Your task to perform on an android device: What's the news in Myanmar? Image 0: 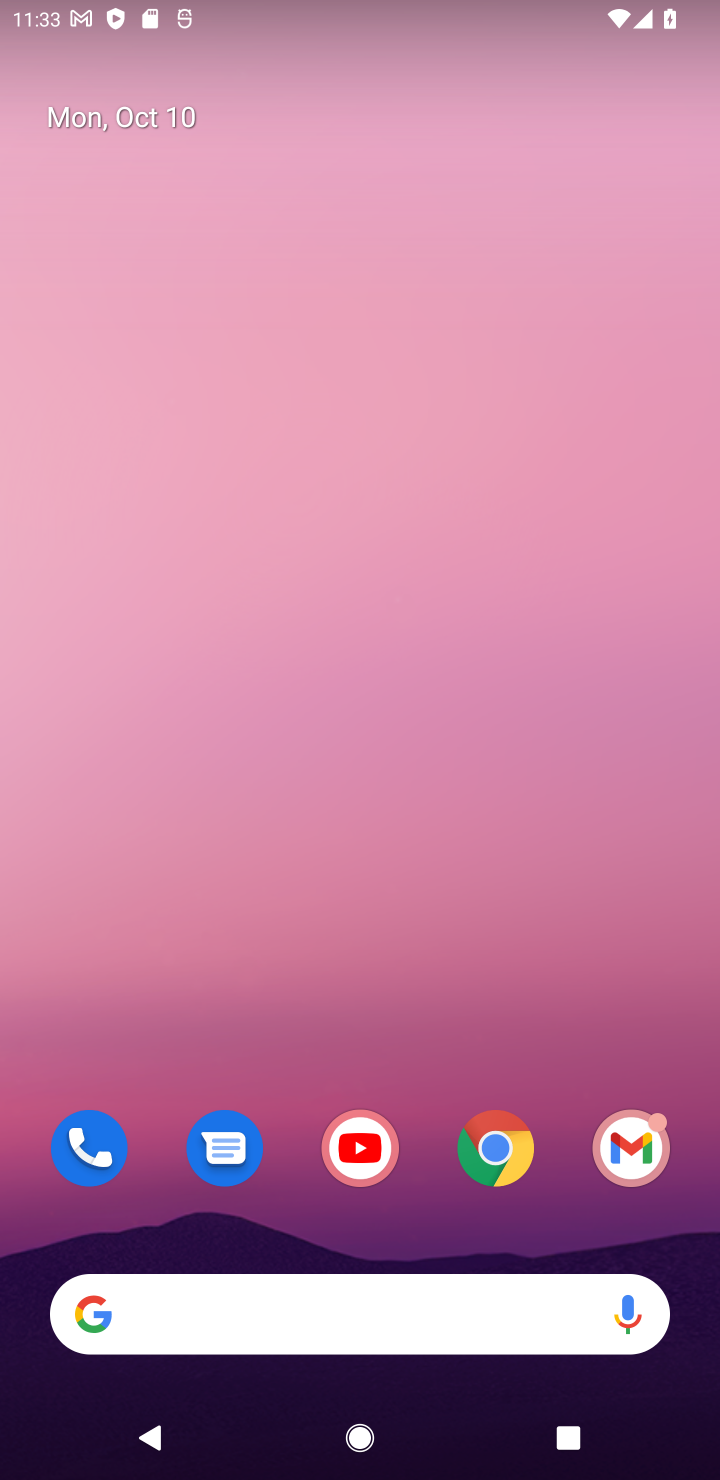
Step 0: drag from (288, 1225) to (338, 641)
Your task to perform on an android device: What's the news in Myanmar? Image 1: 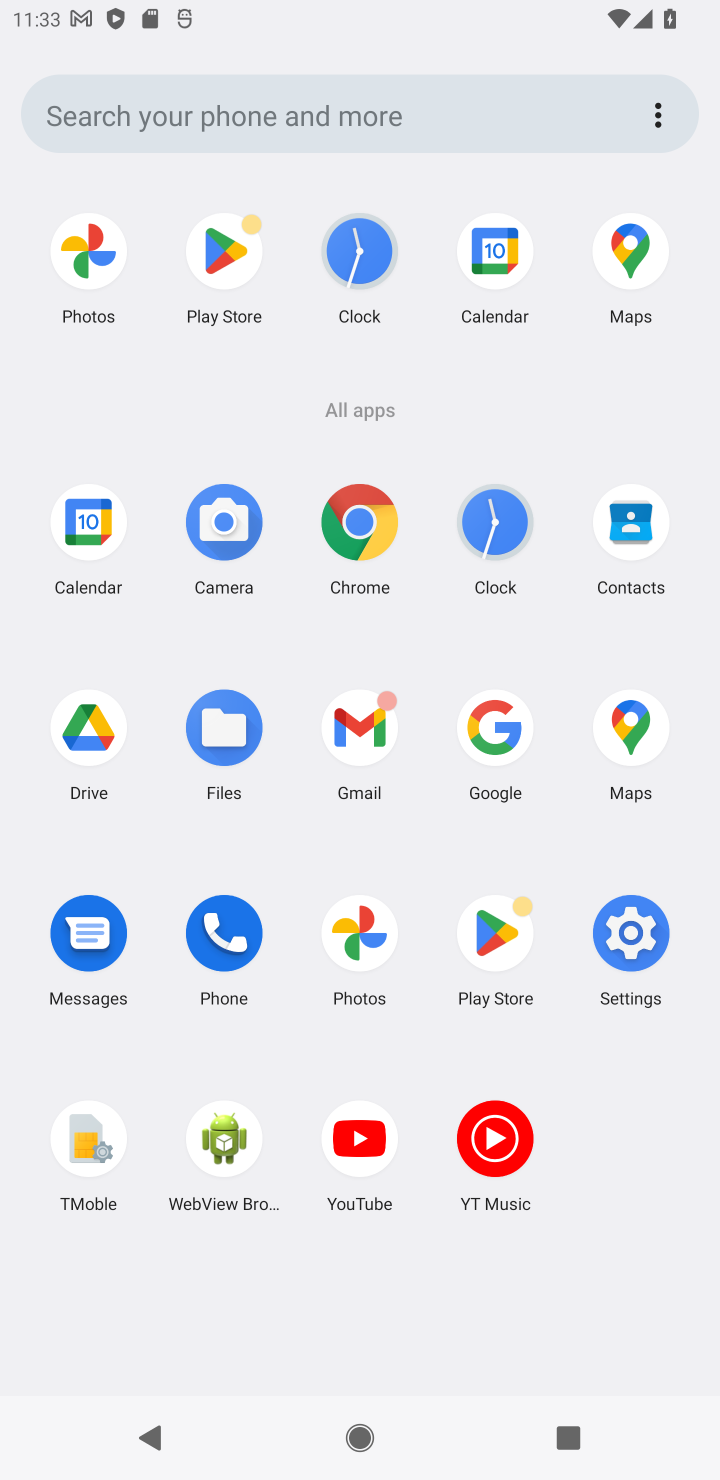
Step 1: click (496, 736)
Your task to perform on an android device: What's the news in Myanmar? Image 2: 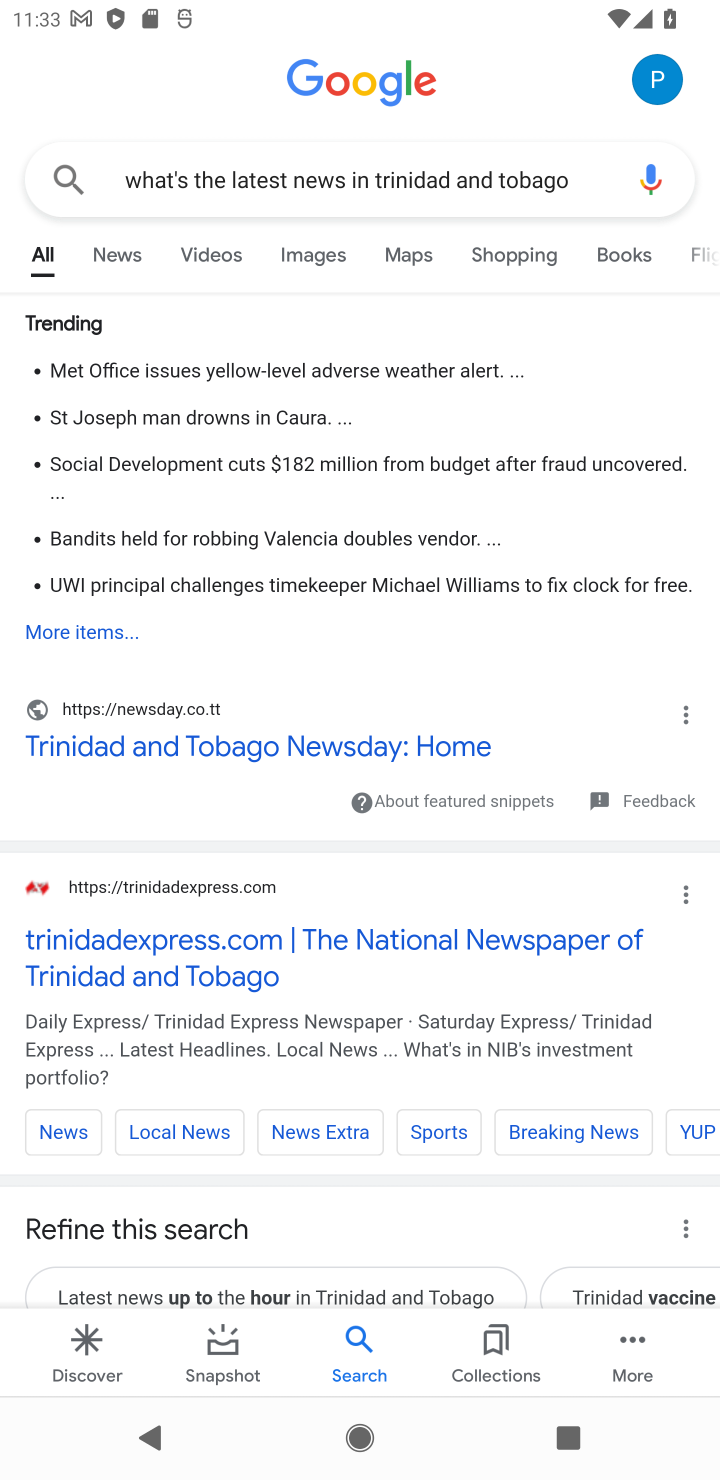
Step 2: click (384, 166)
Your task to perform on an android device: What's the news in Myanmar? Image 3: 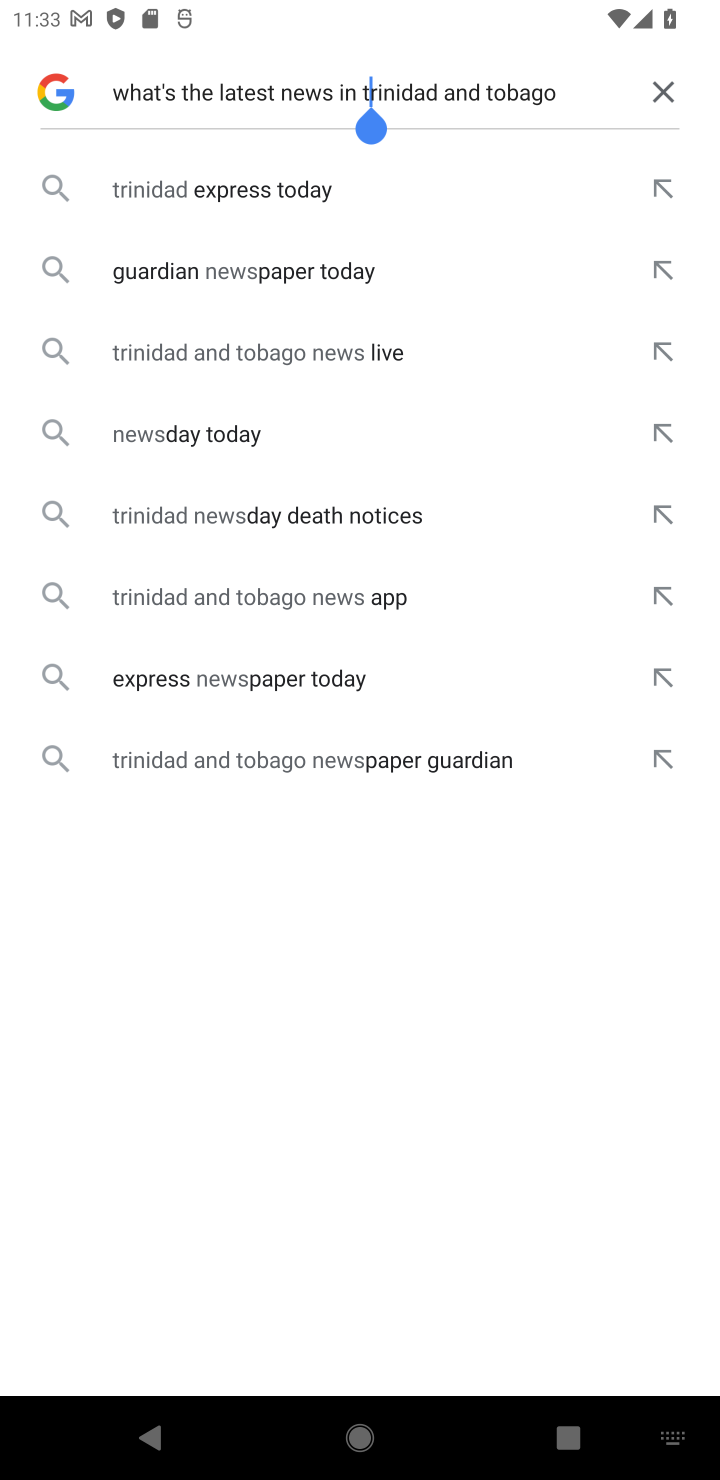
Step 3: click (672, 92)
Your task to perform on an android device: What's the news in Myanmar? Image 4: 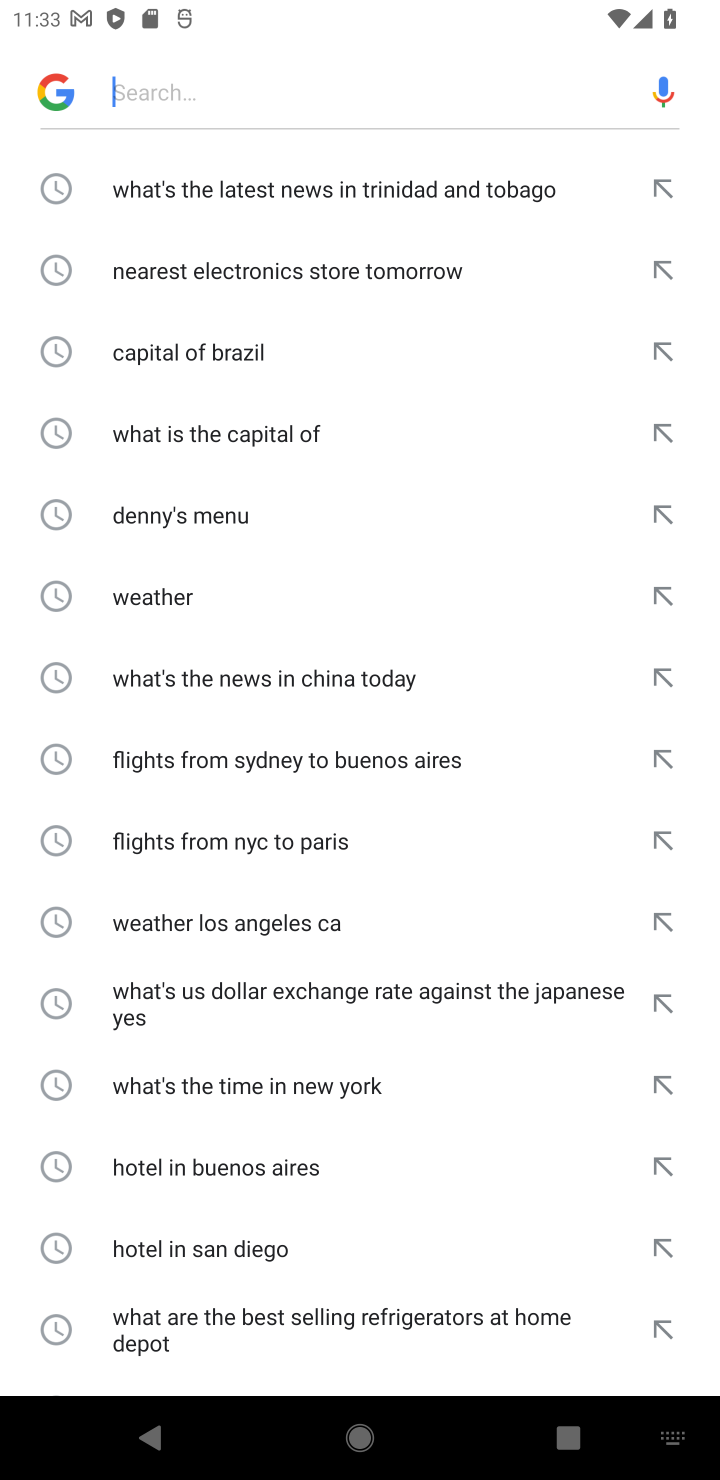
Step 4: type "What's the news in Myanmar?"
Your task to perform on an android device: What's the news in Myanmar? Image 5: 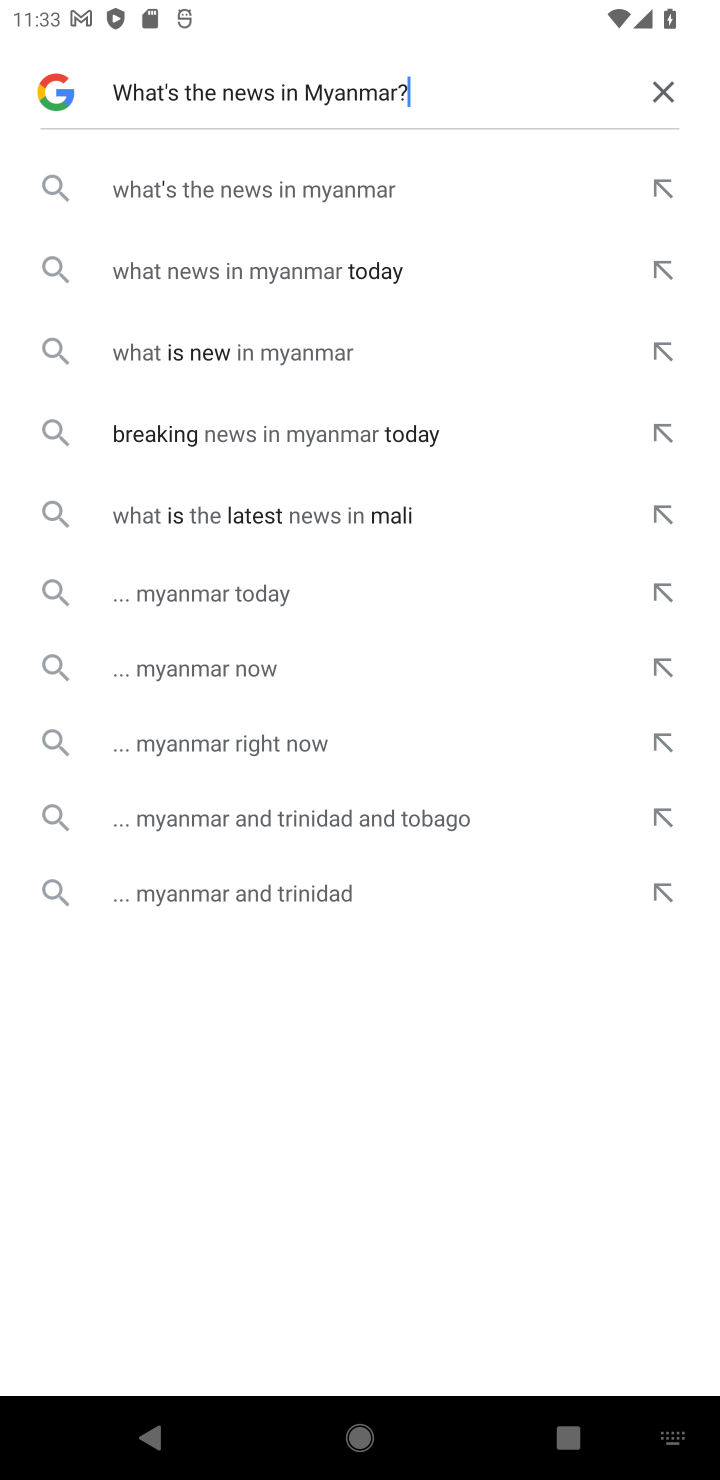
Step 5: click (327, 200)
Your task to perform on an android device: What's the news in Myanmar? Image 6: 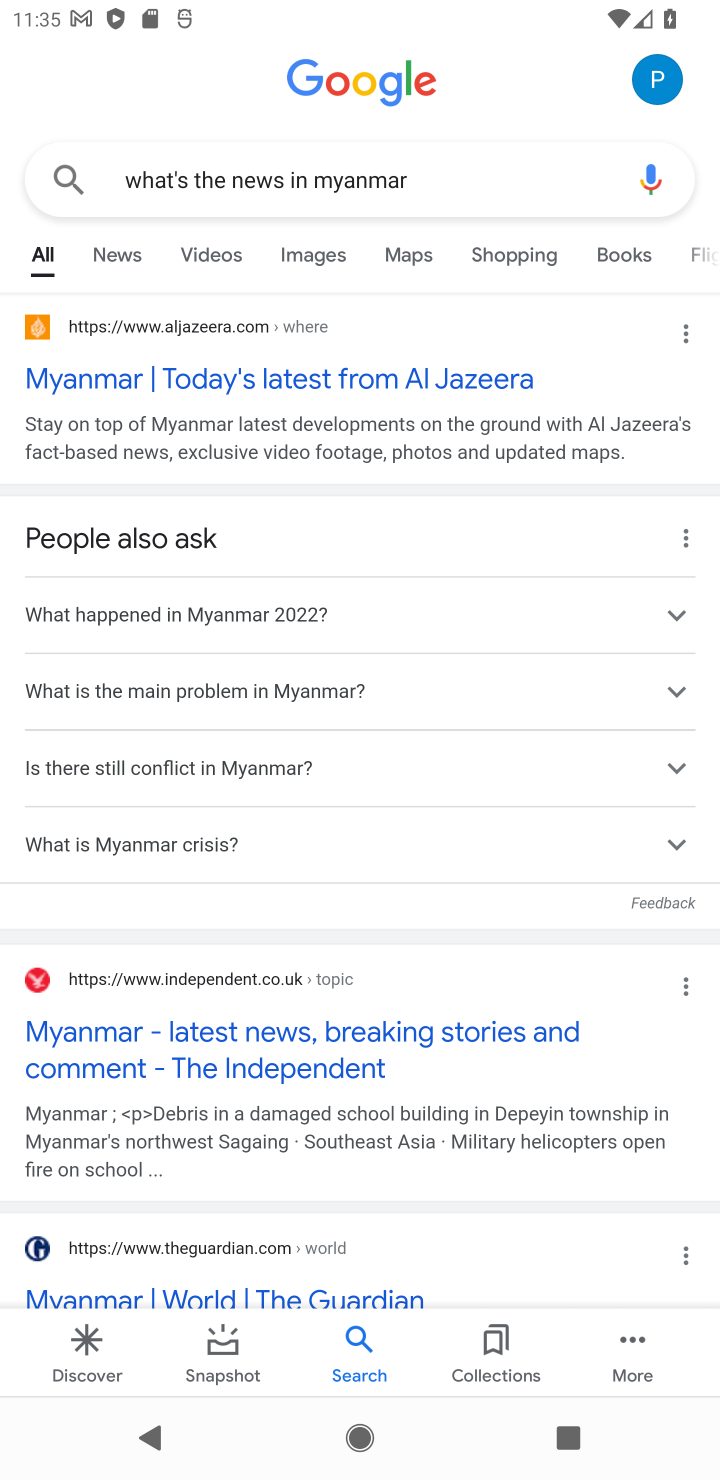
Step 6: click (257, 376)
Your task to perform on an android device: What's the news in Myanmar? Image 7: 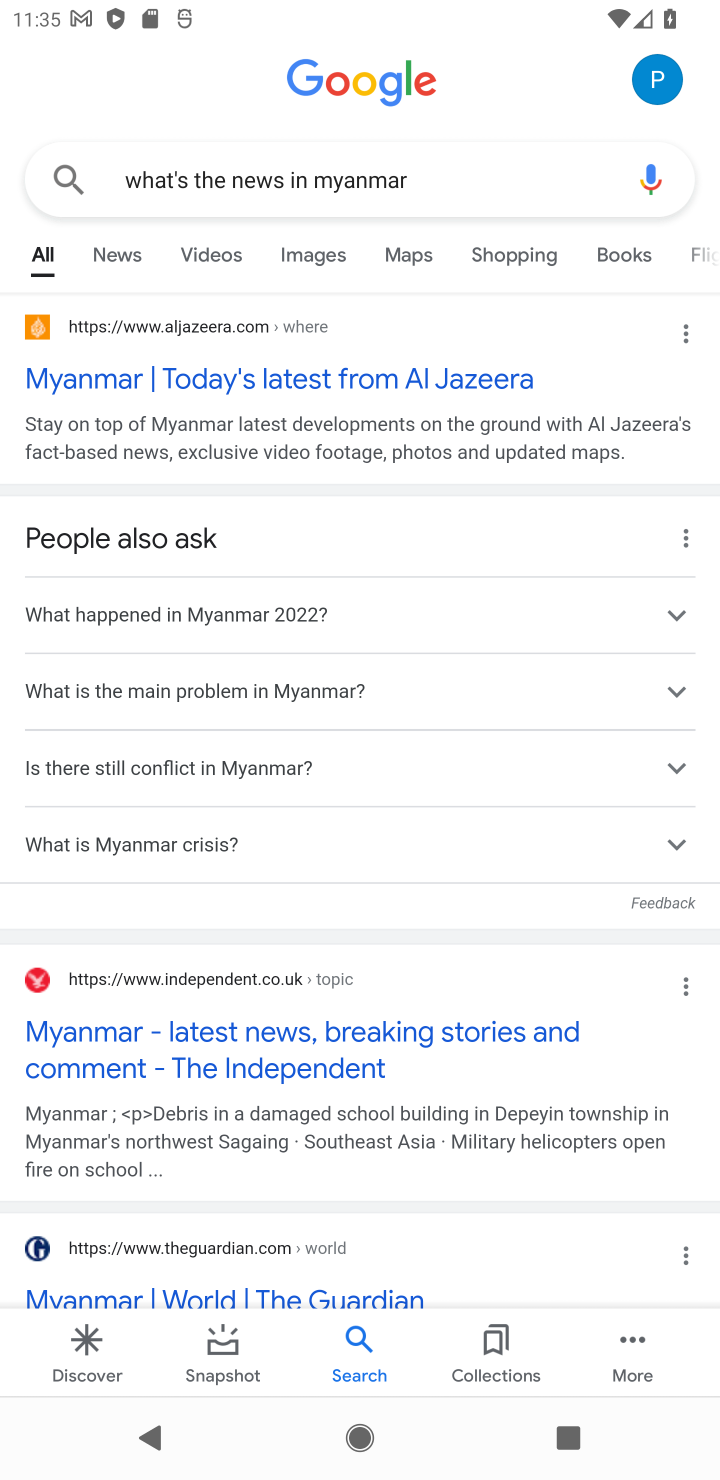
Step 7: click (482, 388)
Your task to perform on an android device: What's the news in Myanmar? Image 8: 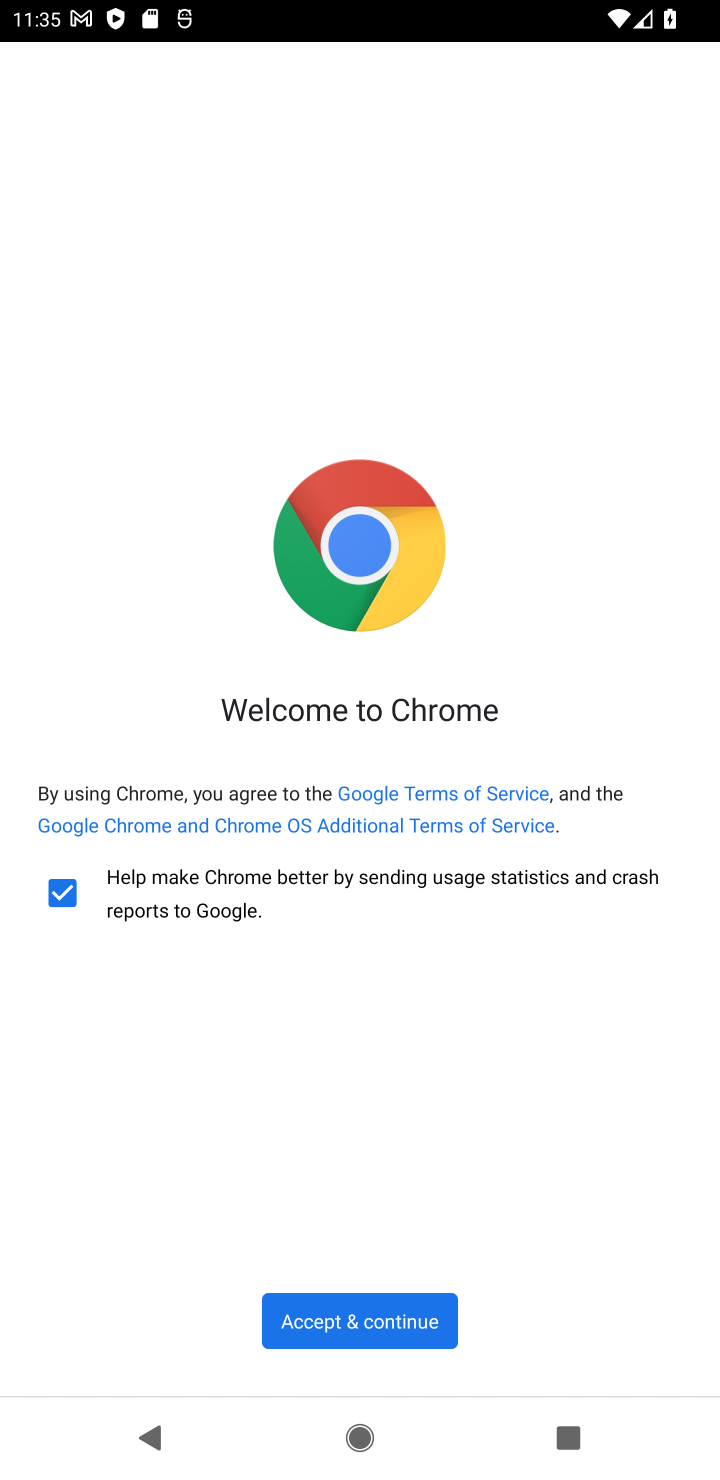
Step 8: click (429, 1317)
Your task to perform on an android device: What's the news in Myanmar? Image 9: 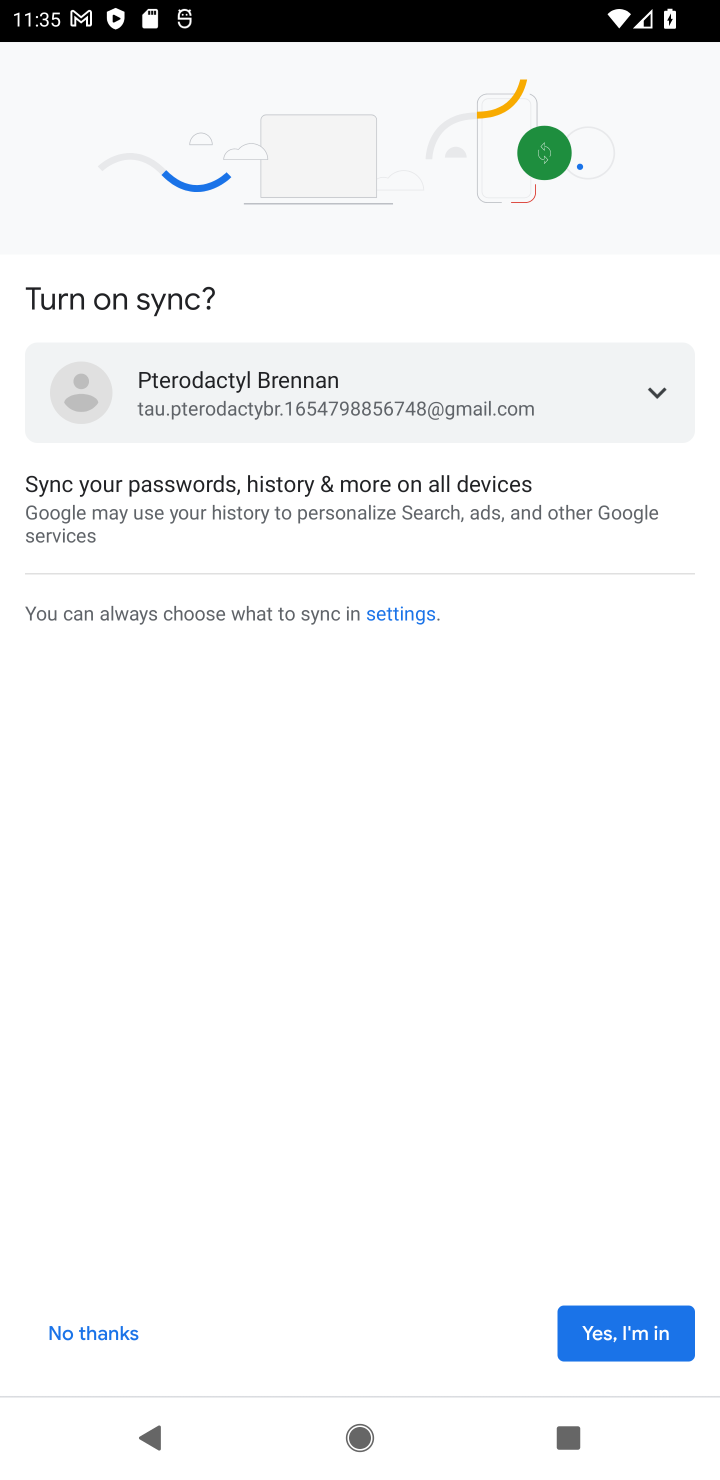
Step 9: click (612, 1325)
Your task to perform on an android device: What's the news in Myanmar? Image 10: 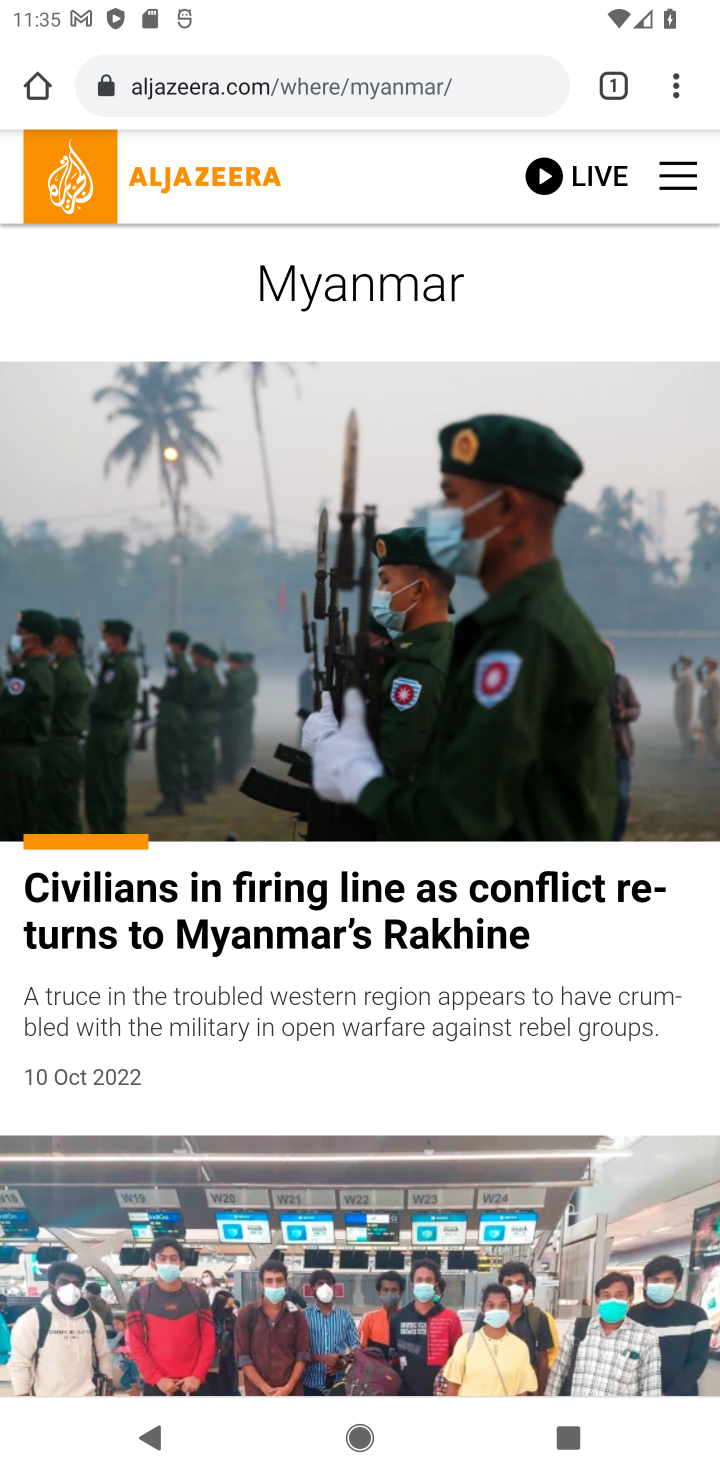
Step 10: task complete